Your task to perform on an android device: Go to notification settings Image 0: 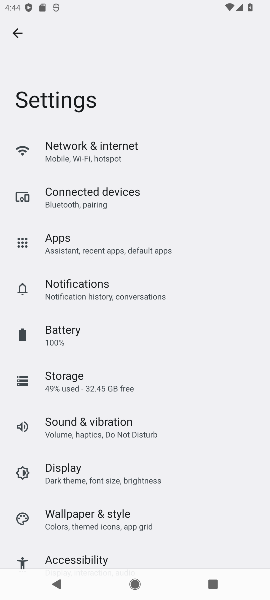
Step 0: press home button
Your task to perform on an android device: Go to notification settings Image 1: 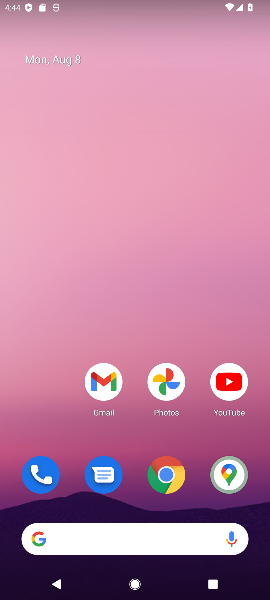
Step 1: drag from (55, 433) to (62, 235)
Your task to perform on an android device: Go to notification settings Image 2: 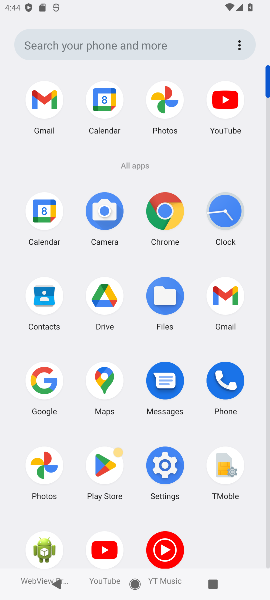
Step 2: click (164, 474)
Your task to perform on an android device: Go to notification settings Image 3: 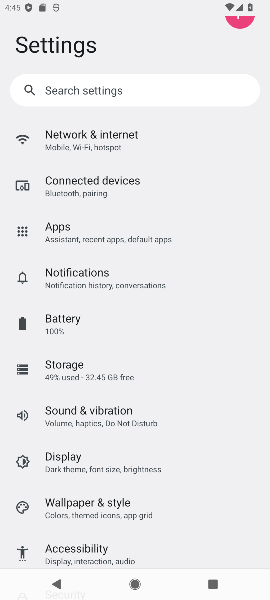
Step 3: drag from (206, 388) to (219, 324)
Your task to perform on an android device: Go to notification settings Image 4: 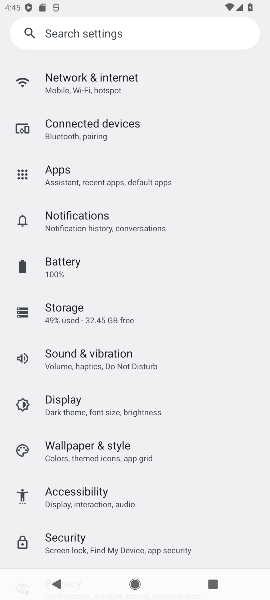
Step 4: drag from (223, 359) to (227, 324)
Your task to perform on an android device: Go to notification settings Image 5: 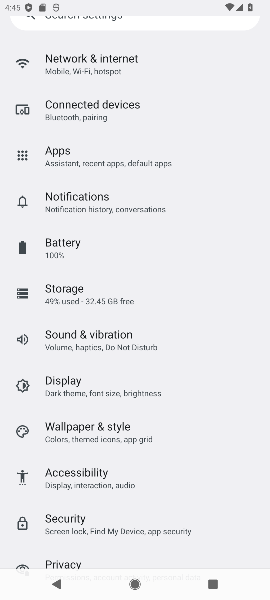
Step 5: drag from (209, 450) to (213, 317)
Your task to perform on an android device: Go to notification settings Image 6: 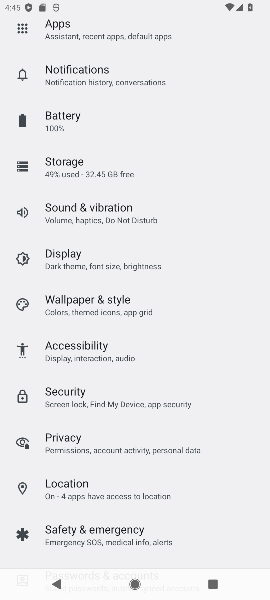
Step 6: drag from (238, 290) to (236, 363)
Your task to perform on an android device: Go to notification settings Image 7: 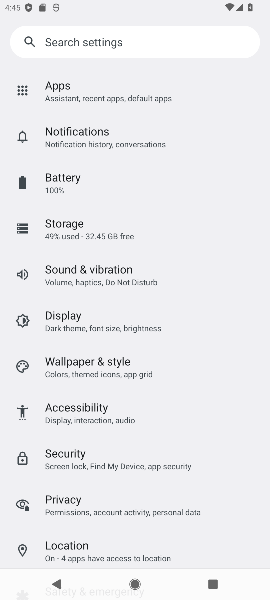
Step 7: drag from (226, 236) to (226, 290)
Your task to perform on an android device: Go to notification settings Image 8: 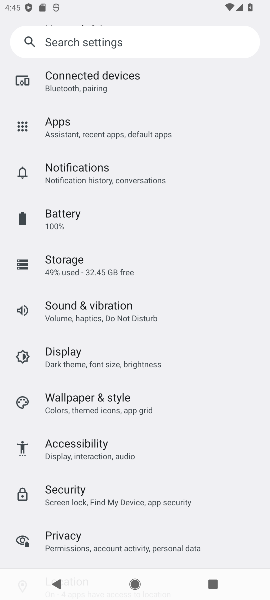
Step 8: drag from (237, 205) to (232, 355)
Your task to perform on an android device: Go to notification settings Image 9: 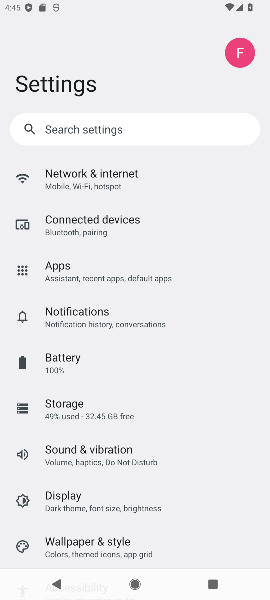
Step 9: click (191, 309)
Your task to perform on an android device: Go to notification settings Image 10: 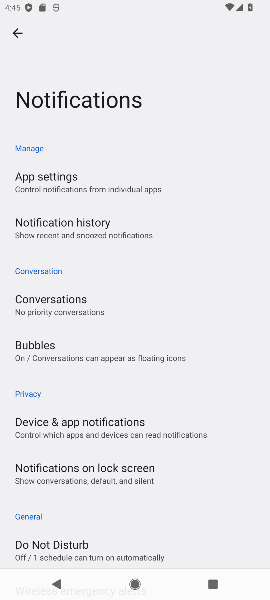
Step 10: task complete